Your task to perform on an android device: find photos in the google photos app Image 0: 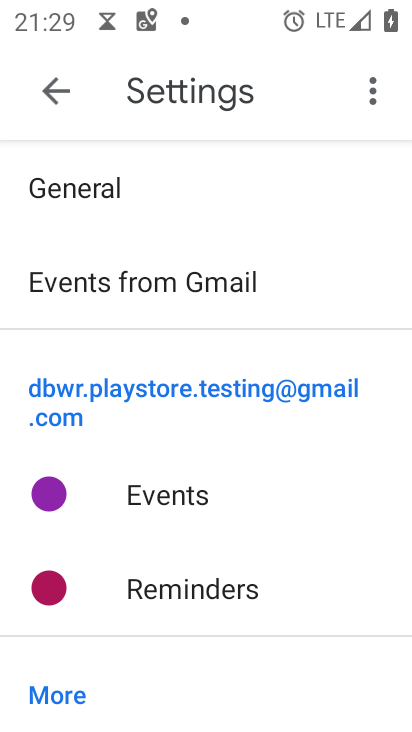
Step 0: press home button
Your task to perform on an android device: find photos in the google photos app Image 1: 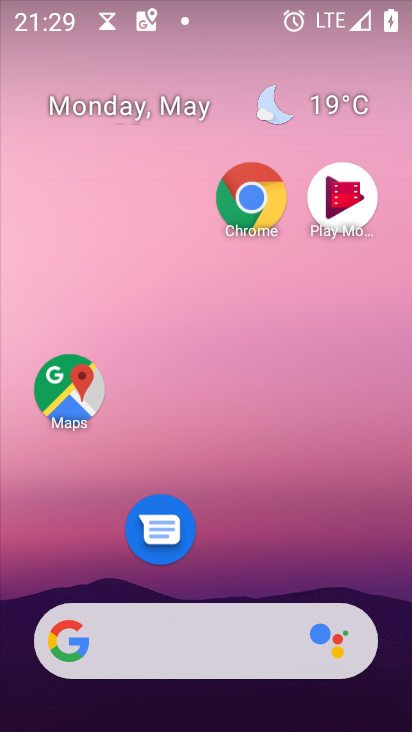
Step 1: drag from (226, 564) to (231, 10)
Your task to perform on an android device: find photos in the google photos app Image 2: 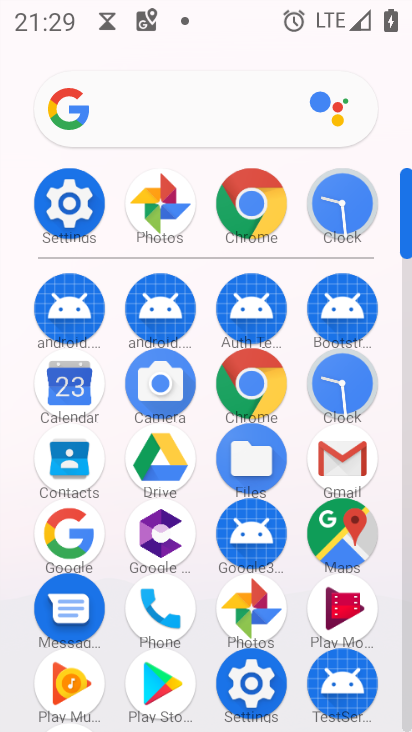
Step 2: click (249, 612)
Your task to perform on an android device: find photos in the google photos app Image 3: 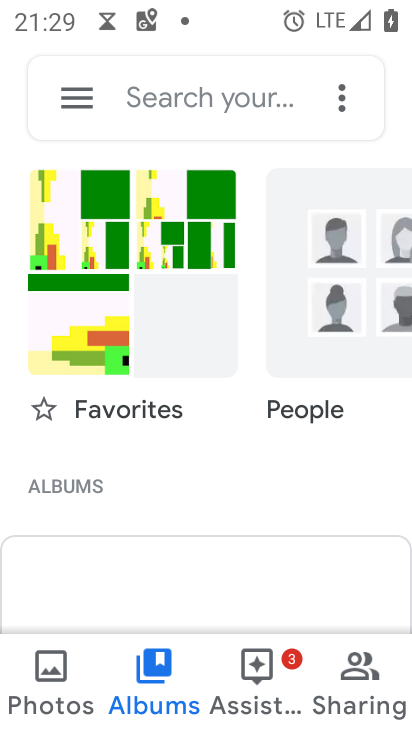
Step 3: click (44, 700)
Your task to perform on an android device: find photos in the google photos app Image 4: 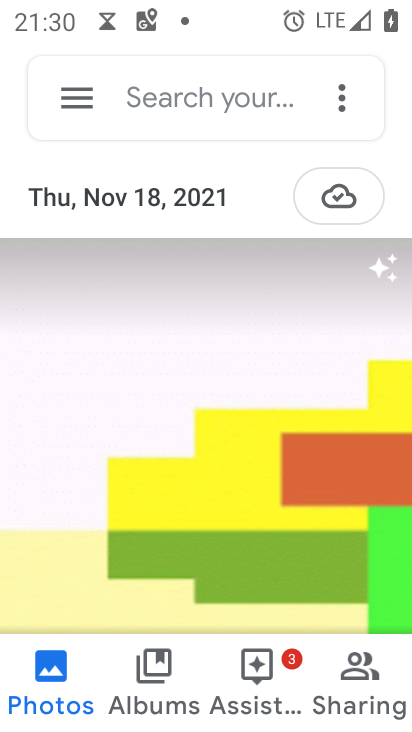
Step 4: task complete